Your task to perform on an android device: Show the shopping cart on bestbuy. Add razer blade to the cart on bestbuy Image 0: 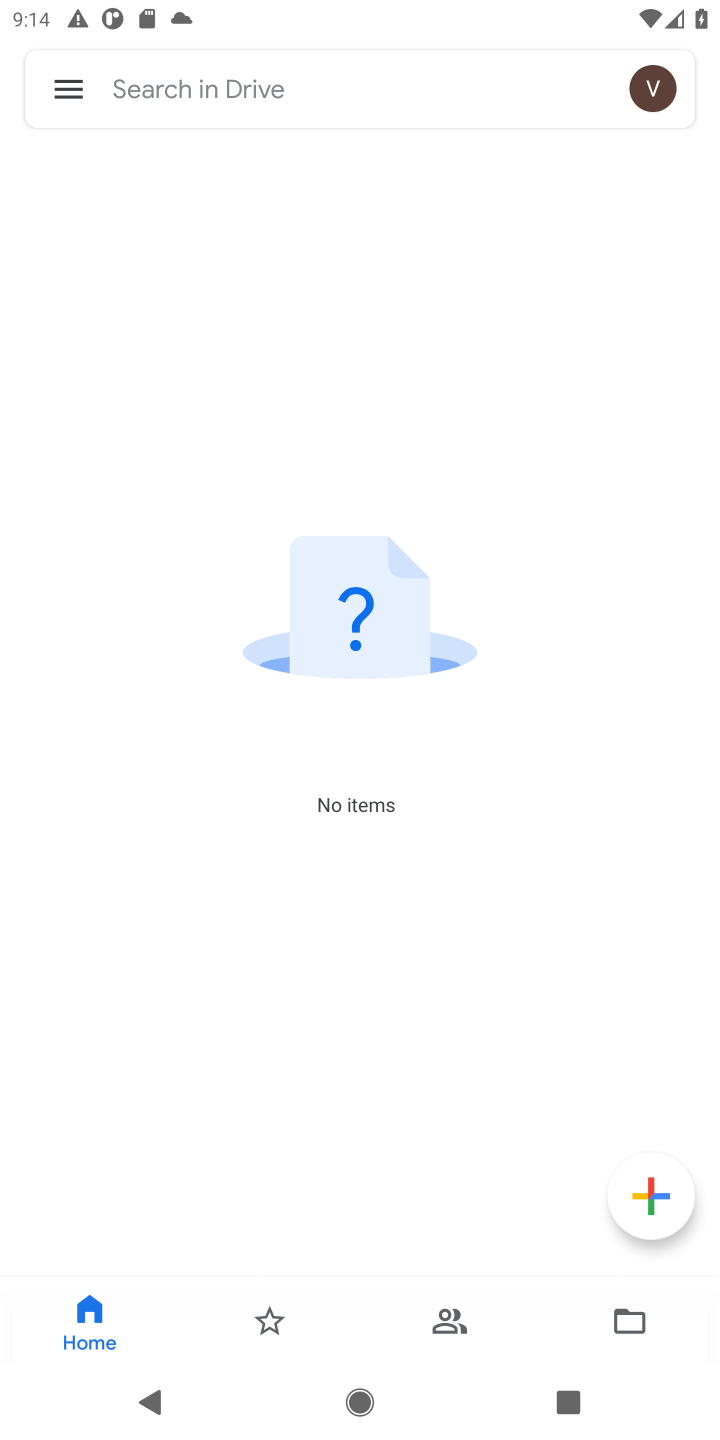
Step 0: press home button
Your task to perform on an android device: Show the shopping cart on bestbuy. Add razer blade to the cart on bestbuy Image 1: 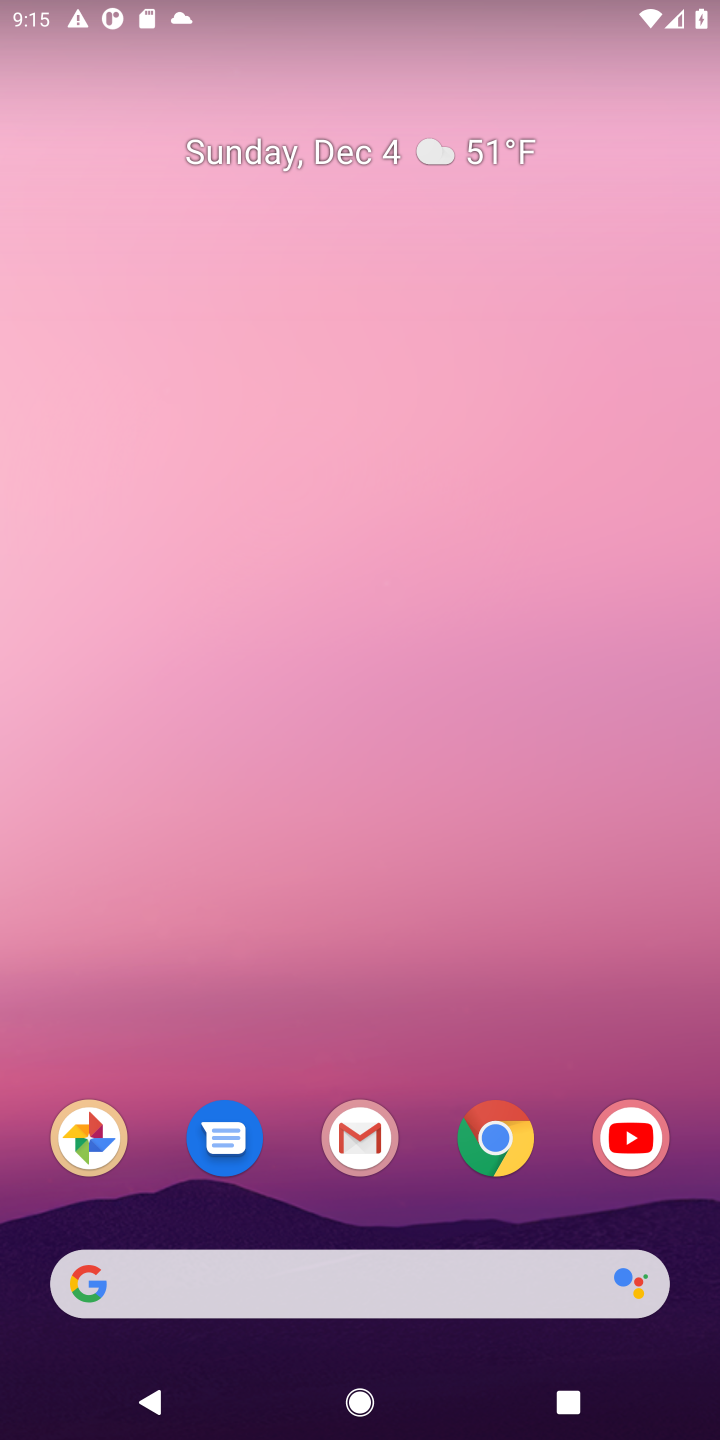
Step 1: click (486, 1144)
Your task to perform on an android device: Show the shopping cart on bestbuy. Add razer blade to the cart on bestbuy Image 2: 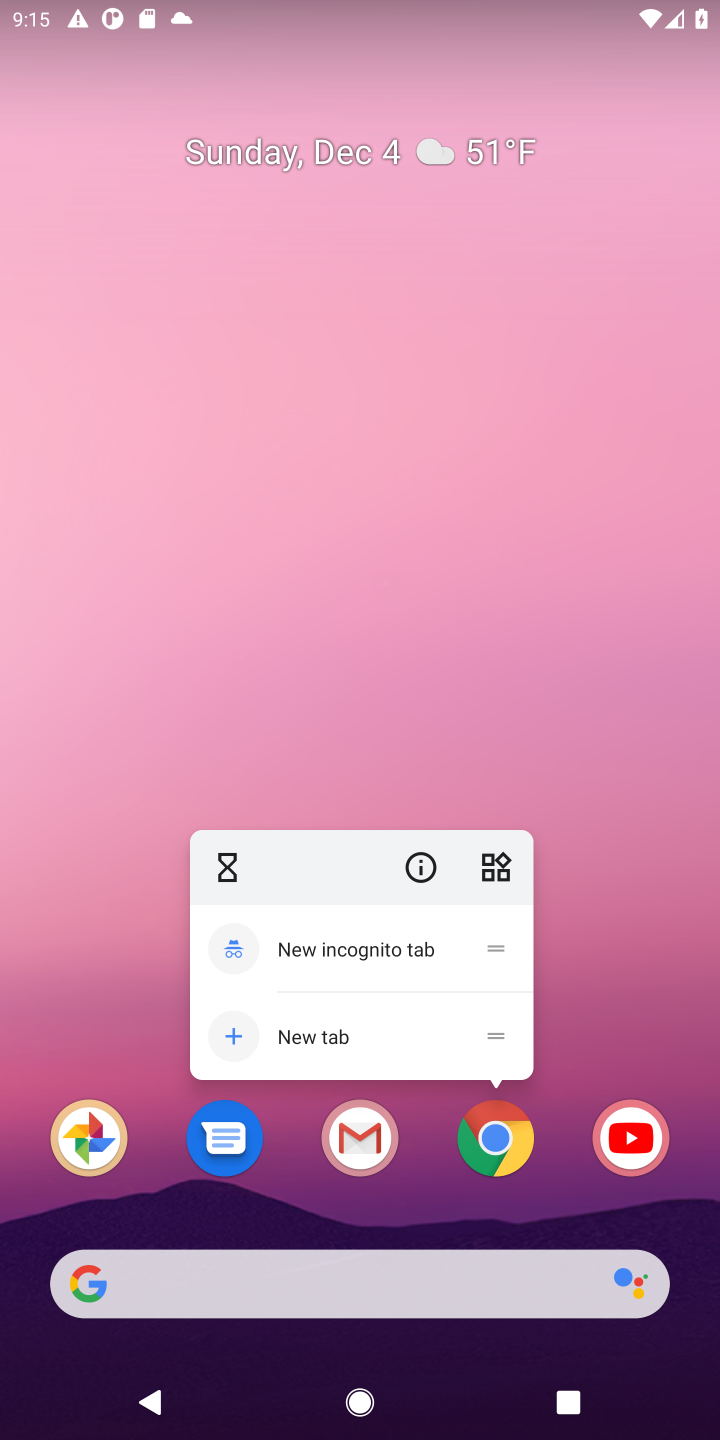
Step 2: click (499, 1132)
Your task to perform on an android device: Show the shopping cart on bestbuy. Add razer blade to the cart on bestbuy Image 3: 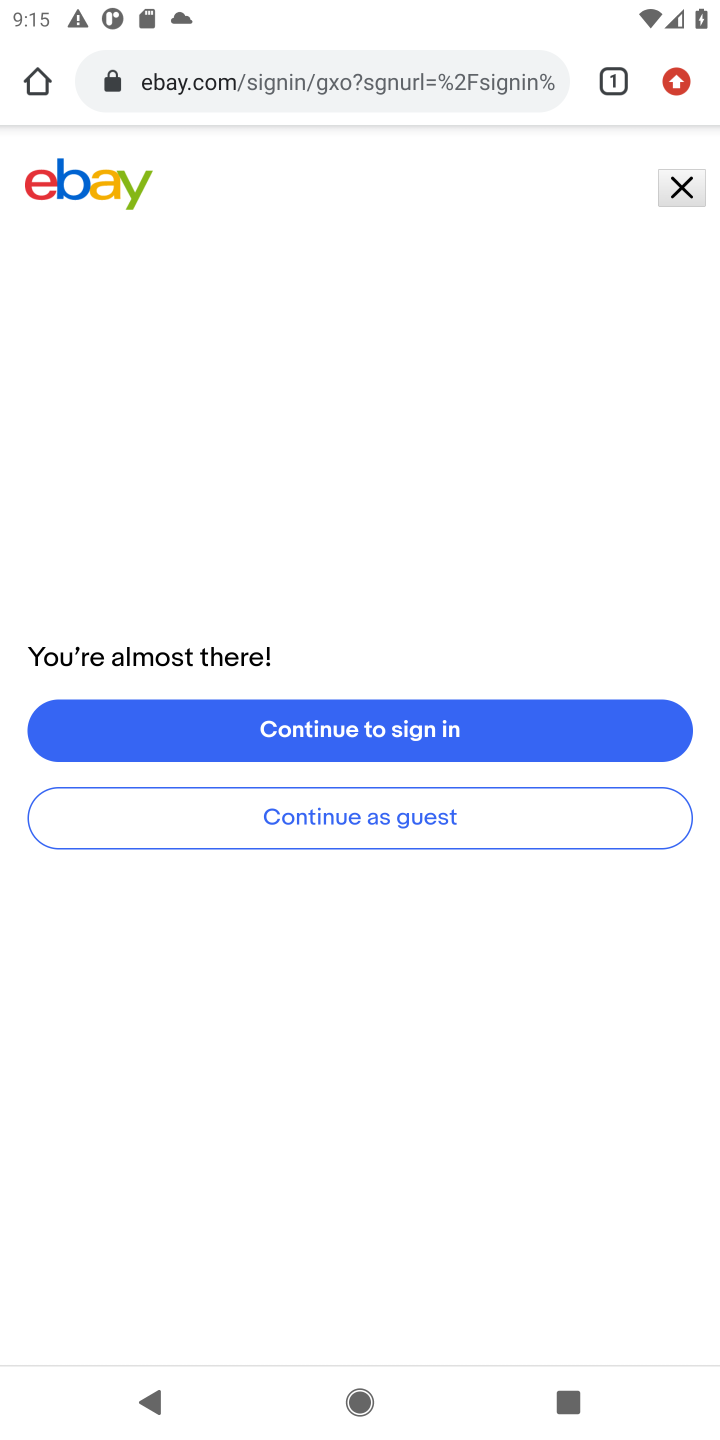
Step 3: click (434, 84)
Your task to perform on an android device: Show the shopping cart on bestbuy. Add razer blade to the cart on bestbuy Image 4: 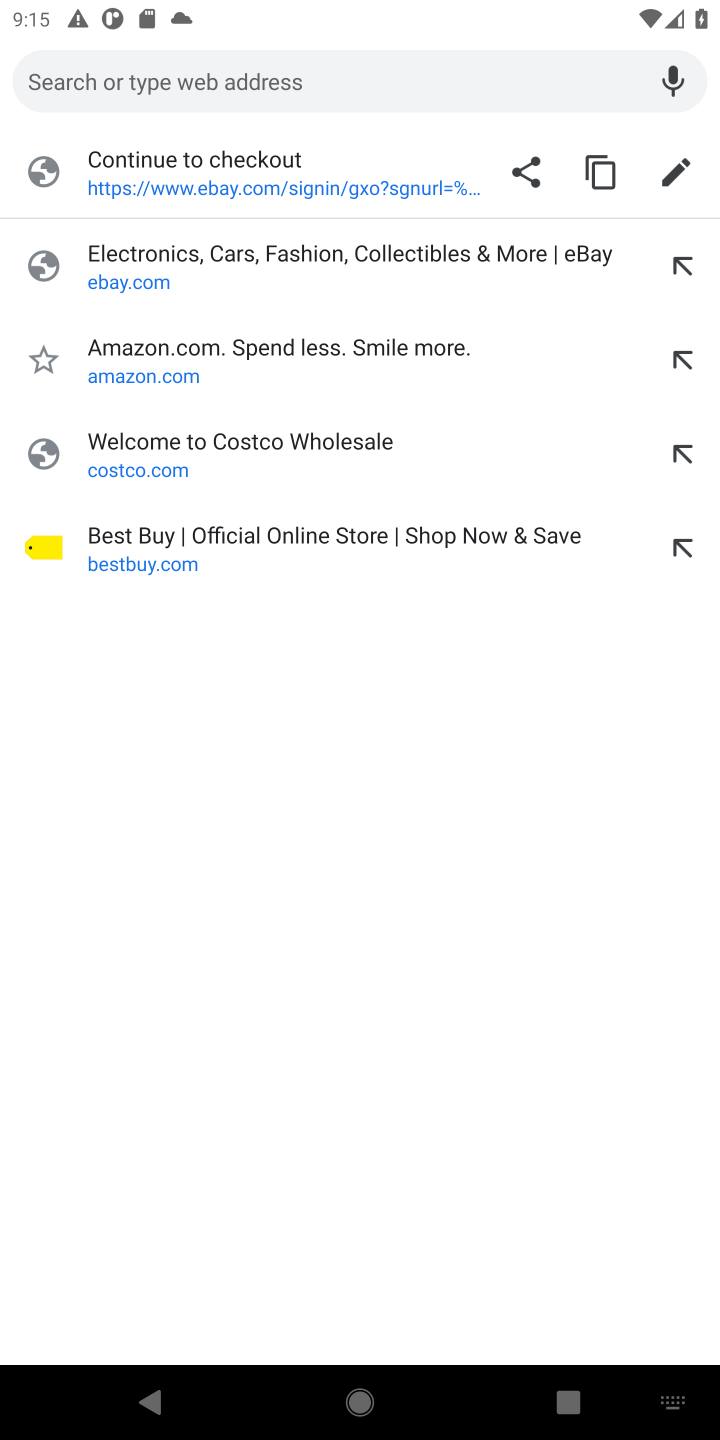
Step 4: click (227, 537)
Your task to perform on an android device: Show the shopping cart on bestbuy. Add razer blade to the cart on bestbuy Image 5: 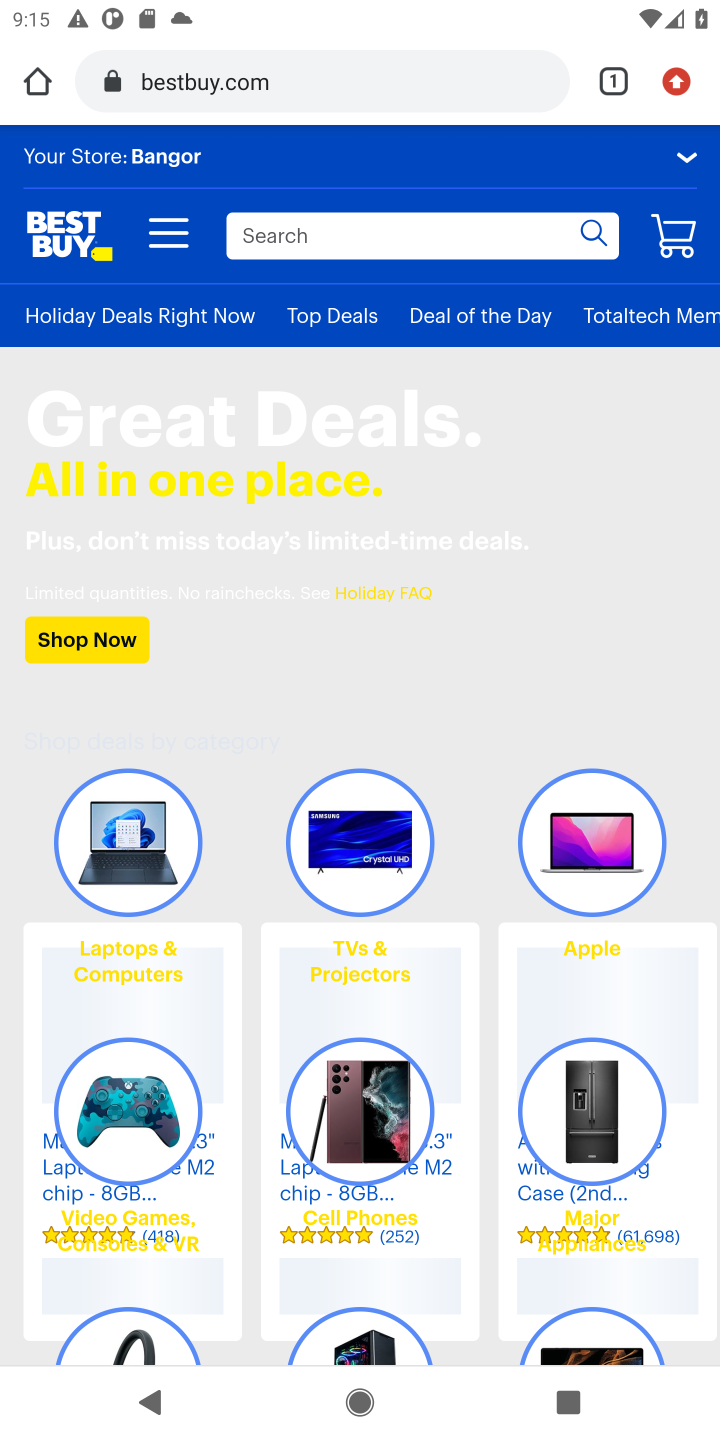
Step 5: click (461, 236)
Your task to perform on an android device: Show the shopping cart on bestbuy. Add razer blade to the cart on bestbuy Image 6: 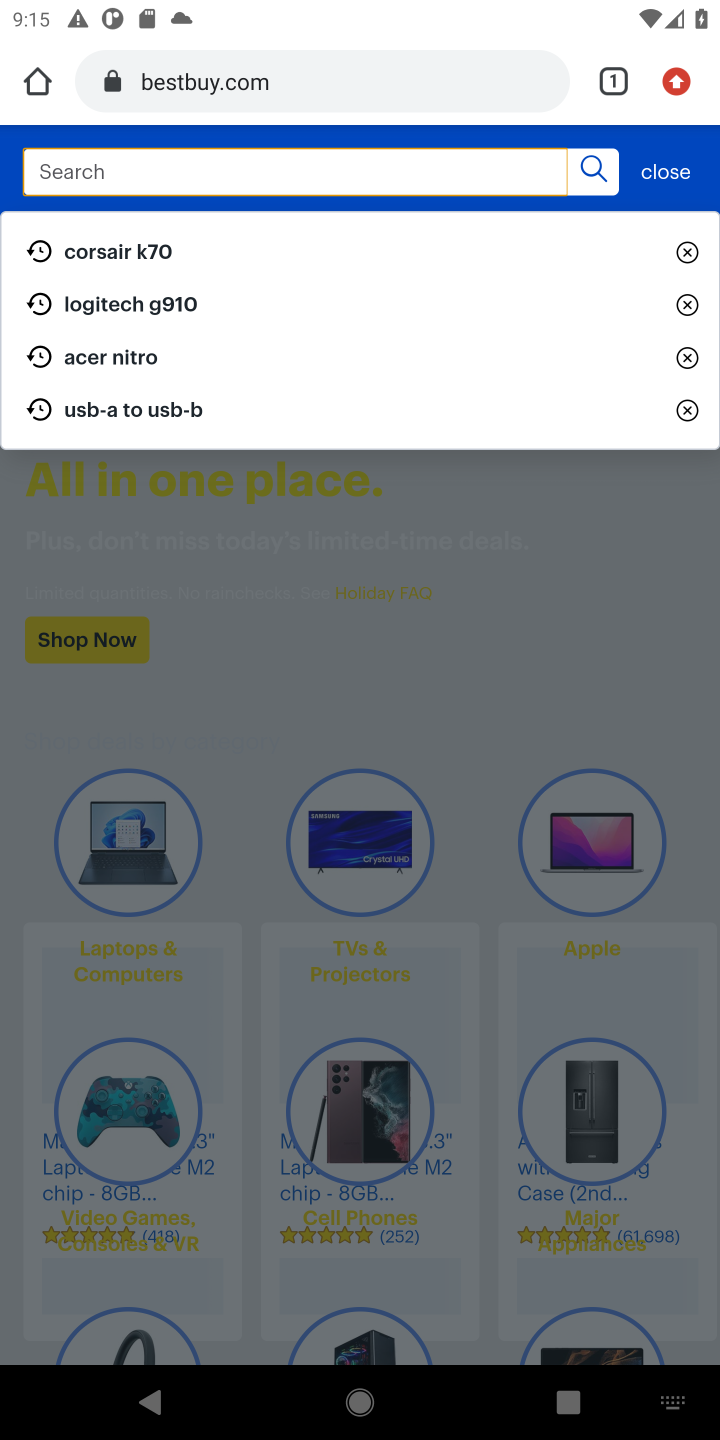
Step 6: type "razer blade"
Your task to perform on an android device: Show the shopping cart on bestbuy. Add razer blade to the cart on bestbuy Image 7: 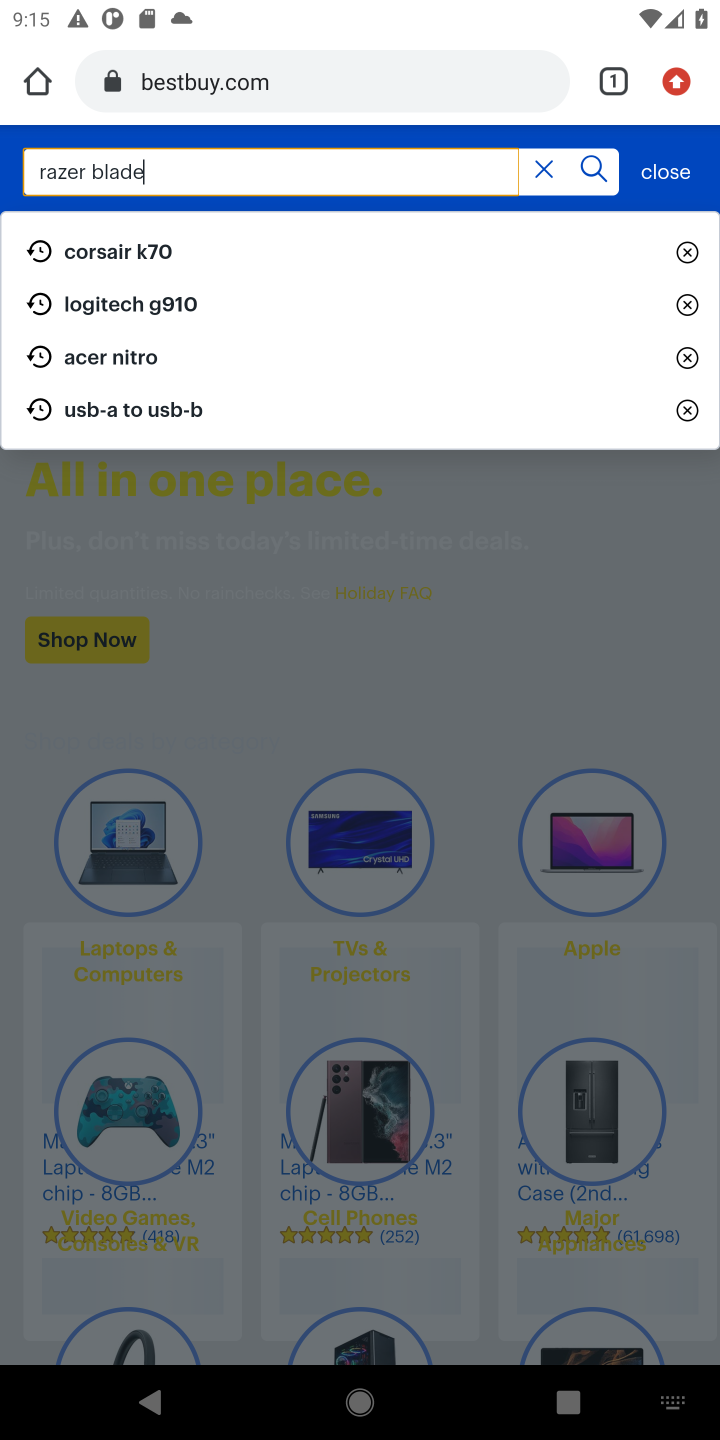
Step 7: press enter
Your task to perform on an android device: Show the shopping cart on bestbuy. Add razer blade to the cart on bestbuy Image 8: 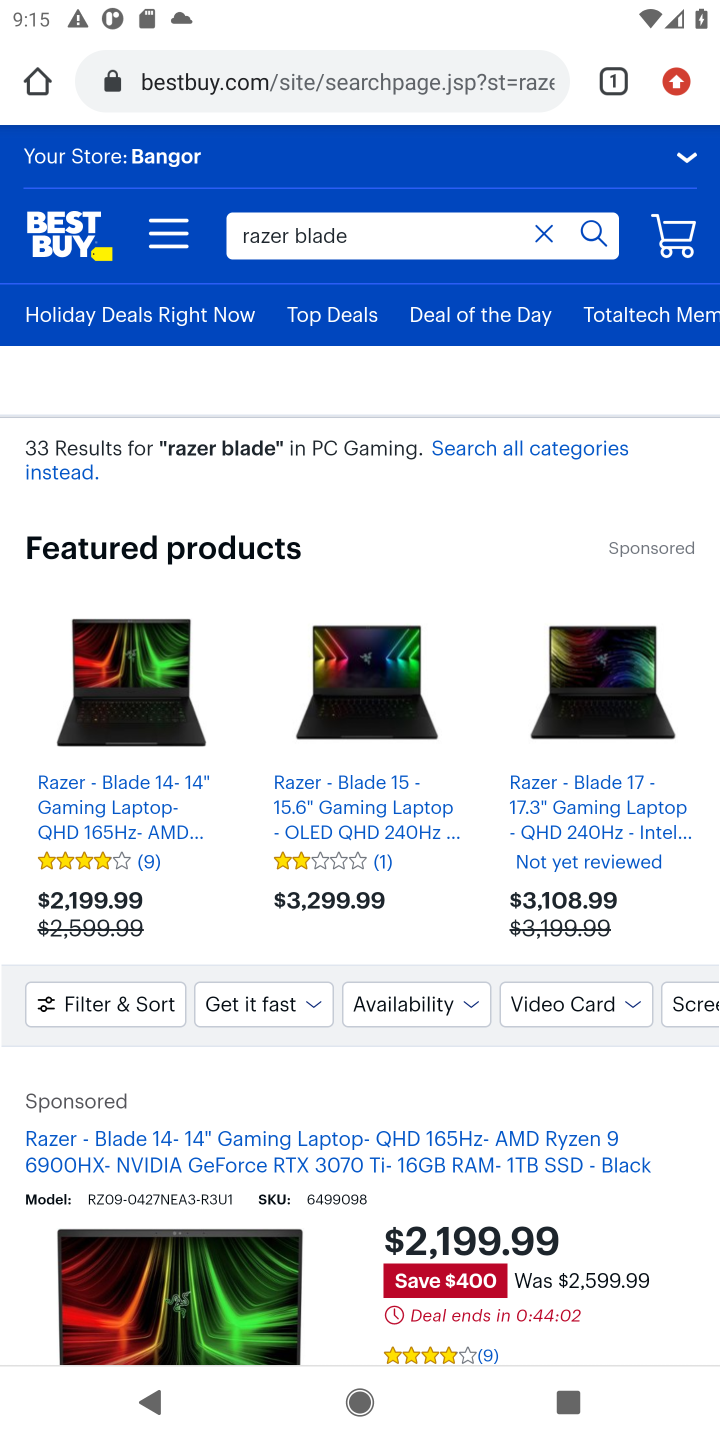
Step 8: click (184, 1275)
Your task to perform on an android device: Show the shopping cart on bestbuy. Add razer blade to the cart on bestbuy Image 9: 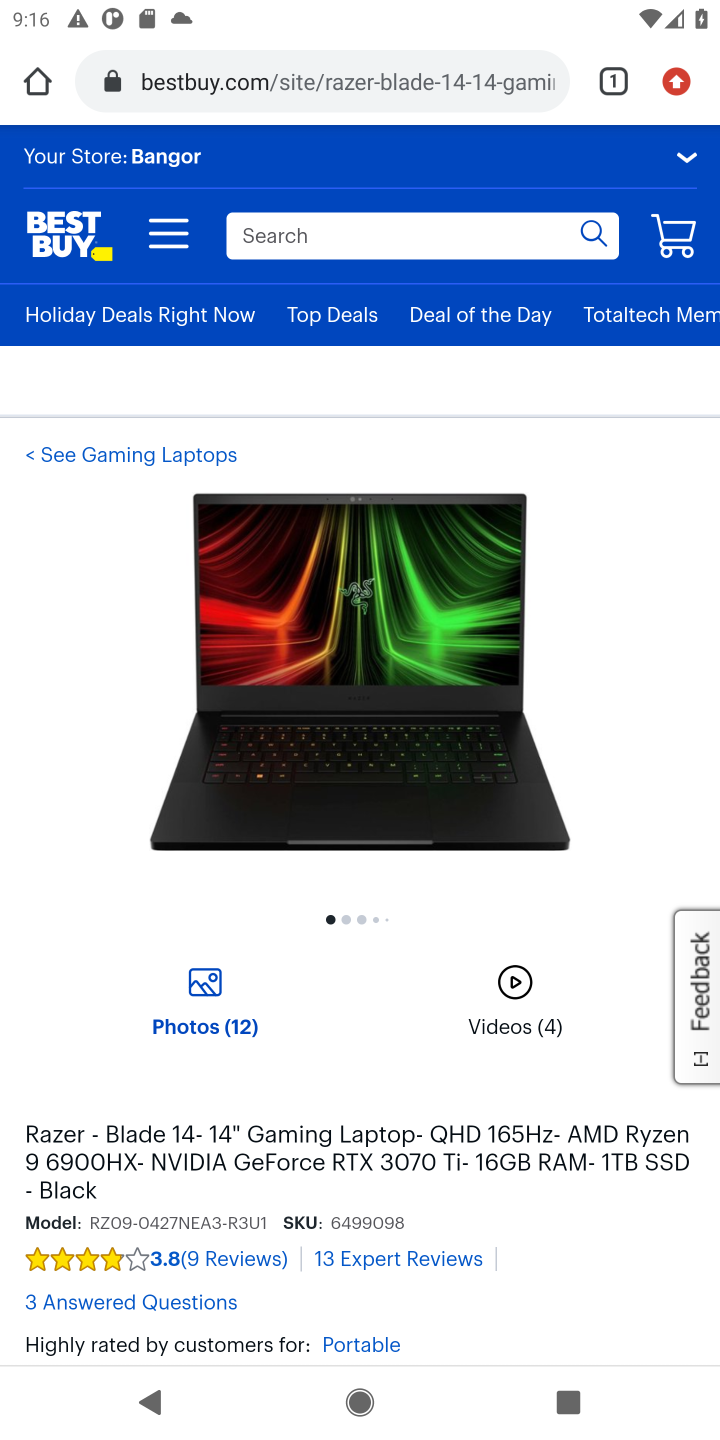
Step 9: drag from (519, 1182) to (544, 263)
Your task to perform on an android device: Show the shopping cart on bestbuy. Add razer blade to the cart on bestbuy Image 10: 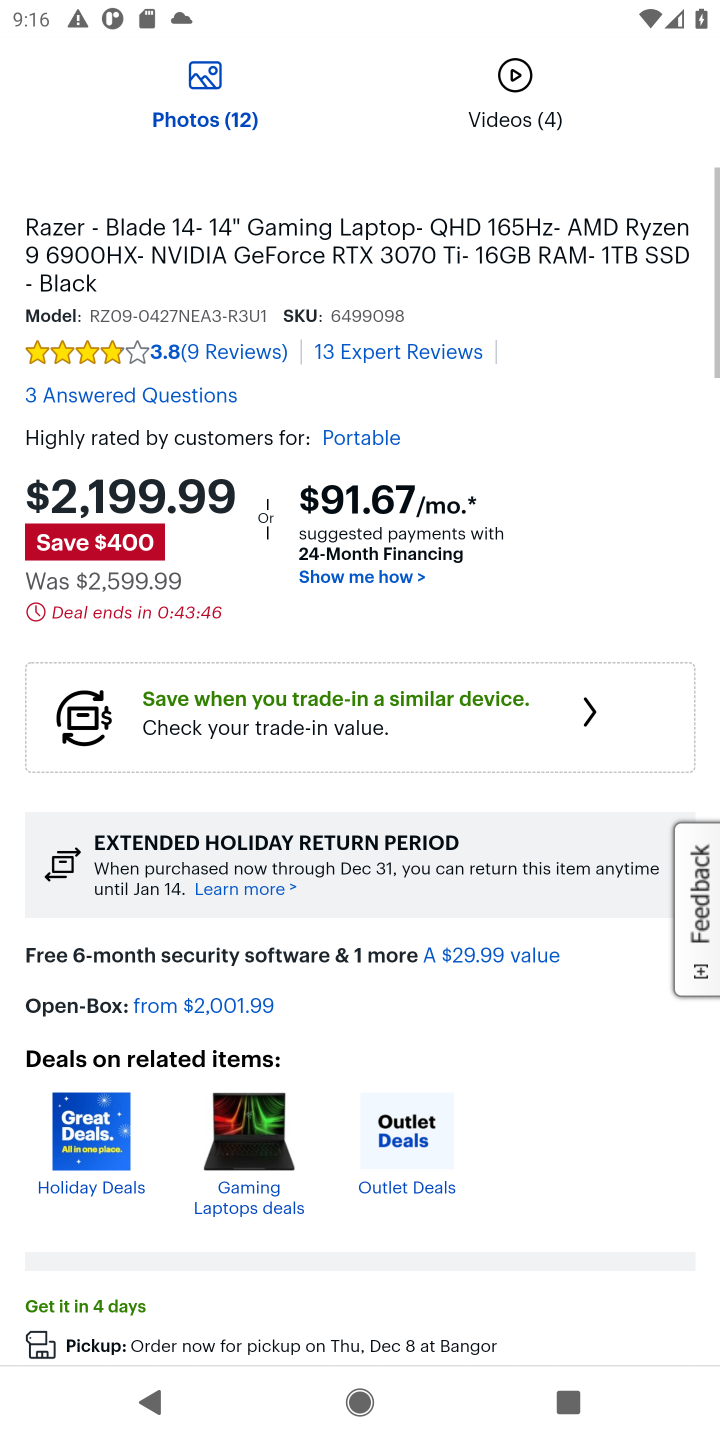
Step 10: drag from (575, 1118) to (522, 480)
Your task to perform on an android device: Show the shopping cart on bestbuy. Add razer blade to the cart on bestbuy Image 11: 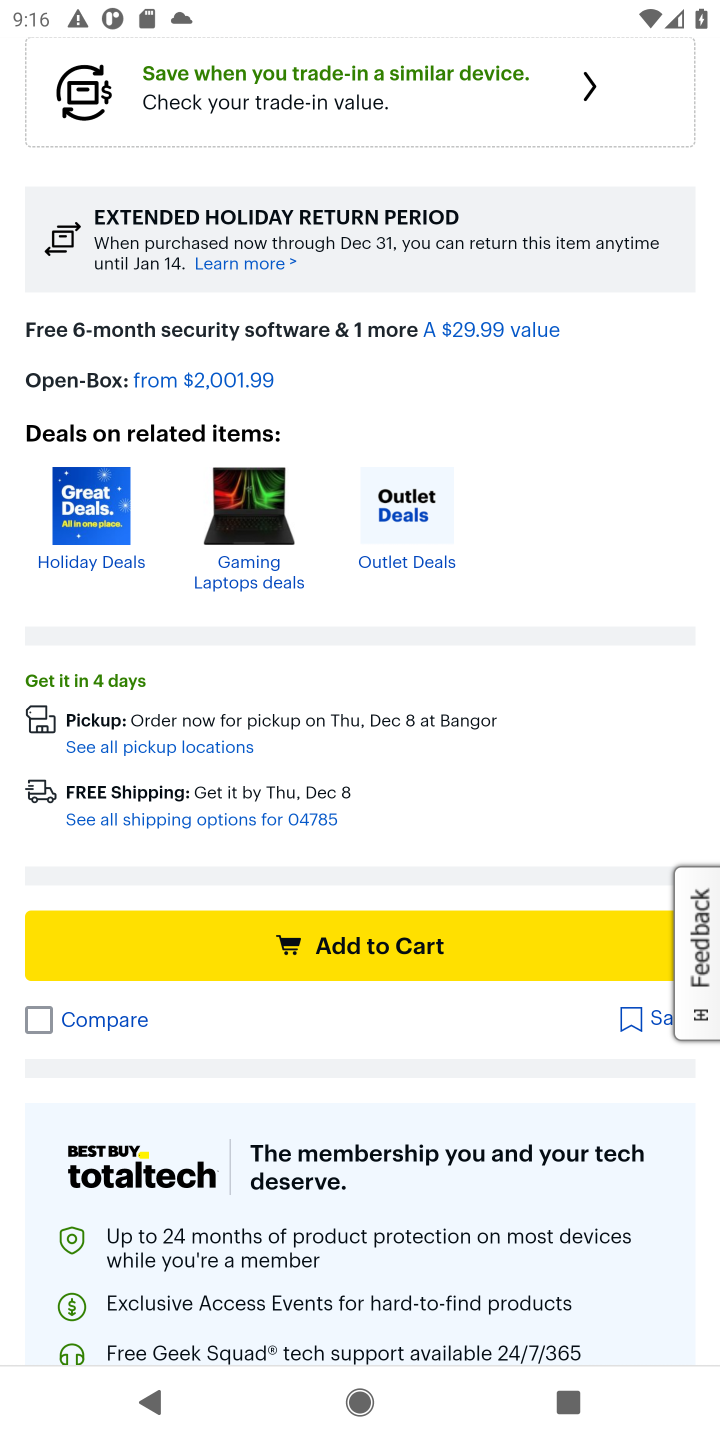
Step 11: click (402, 937)
Your task to perform on an android device: Show the shopping cart on bestbuy. Add razer blade to the cart on bestbuy Image 12: 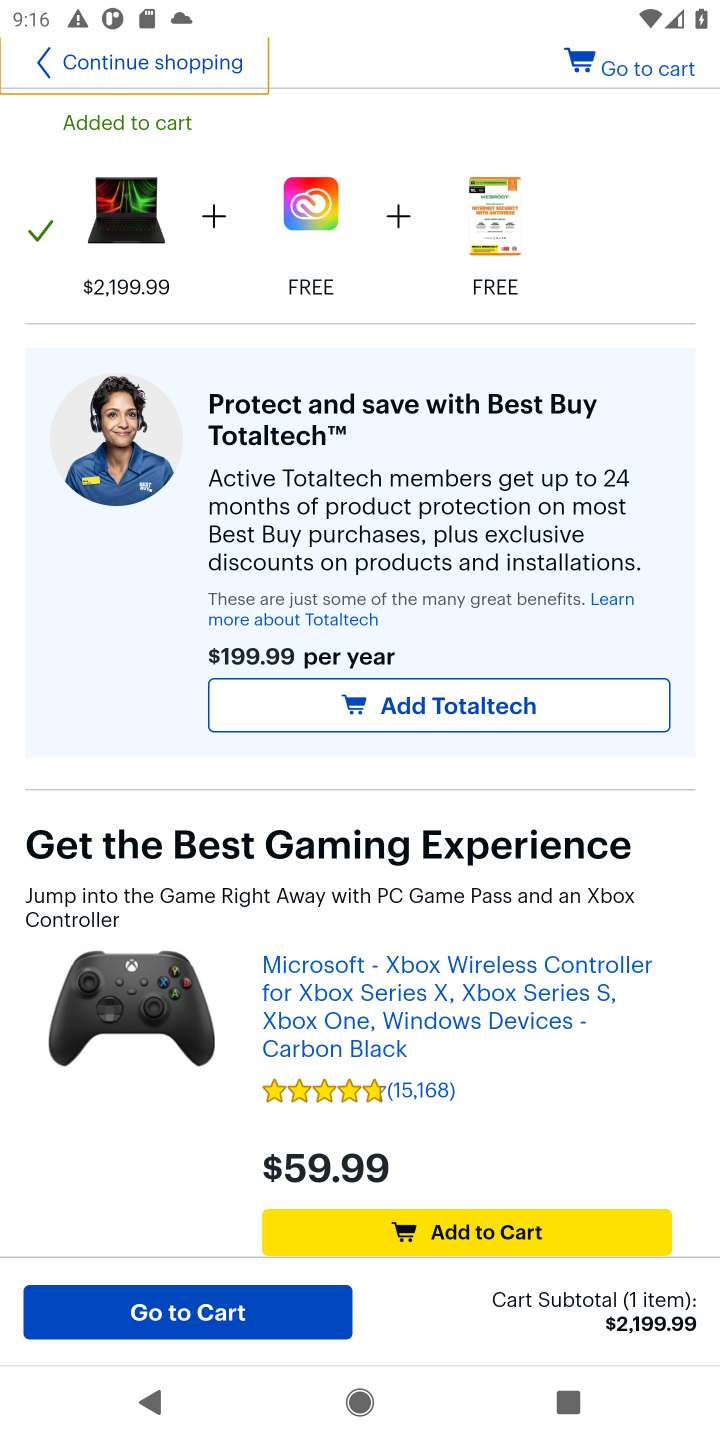
Step 12: task complete